Your task to perform on an android device: remove spam from my inbox in the gmail app Image 0: 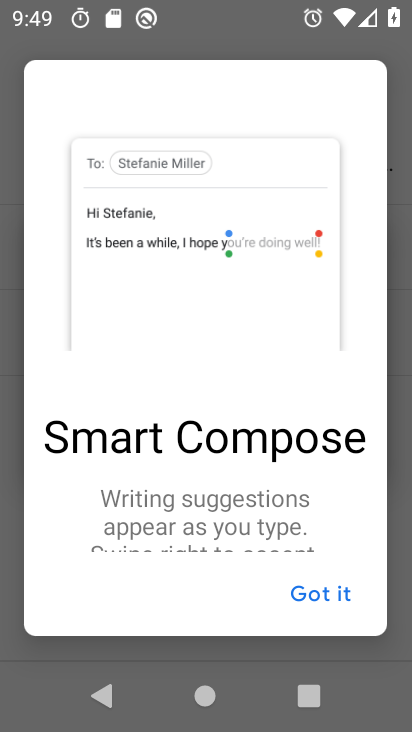
Step 0: press home button
Your task to perform on an android device: remove spam from my inbox in the gmail app Image 1: 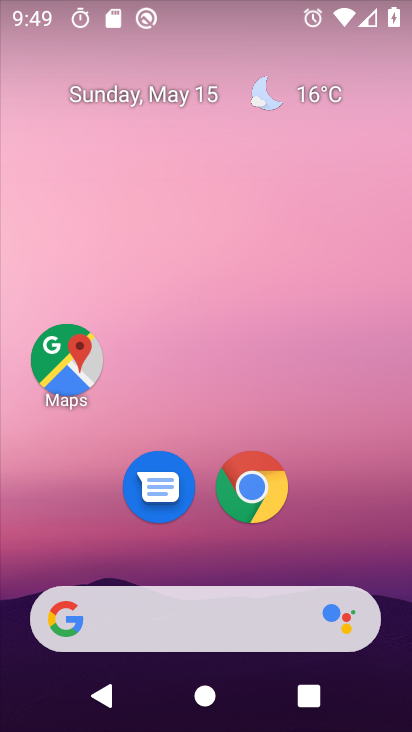
Step 1: drag from (358, 527) to (358, 128)
Your task to perform on an android device: remove spam from my inbox in the gmail app Image 2: 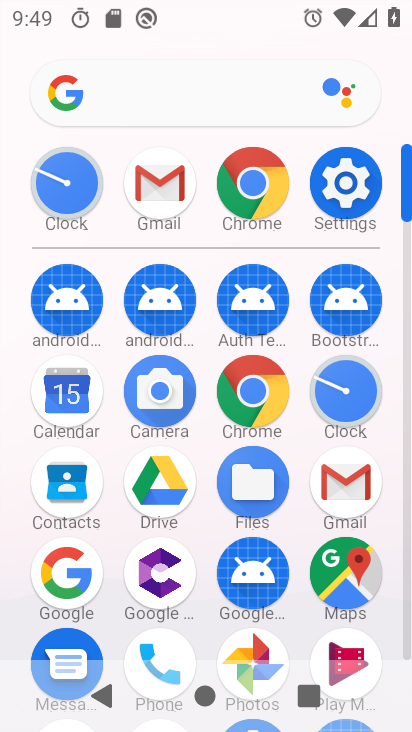
Step 2: click (354, 502)
Your task to perform on an android device: remove spam from my inbox in the gmail app Image 3: 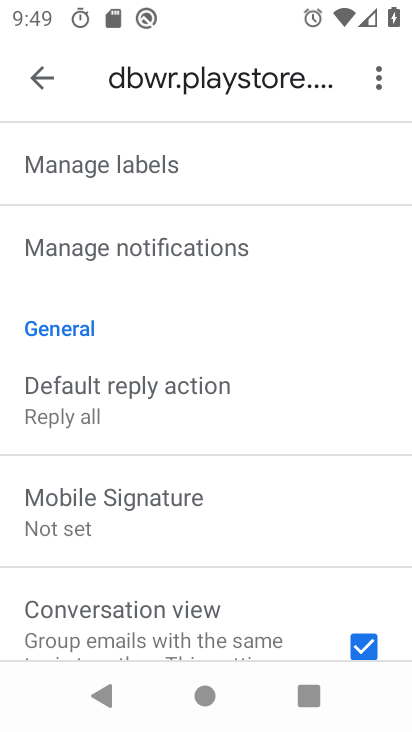
Step 3: drag from (251, 581) to (290, 256)
Your task to perform on an android device: remove spam from my inbox in the gmail app Image 4: 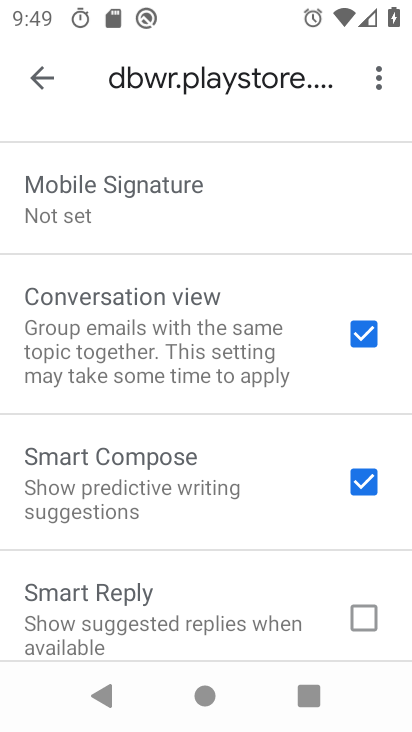
Step 4: click (47, 70)
Your task to perform on an android device: remove spam from my inbox in the gmail app Image 5: 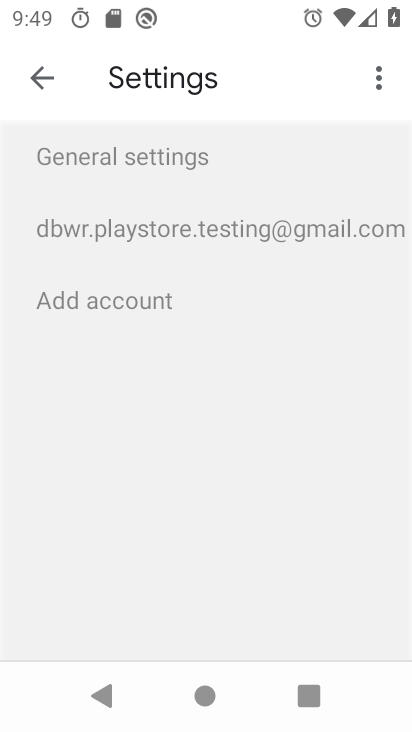
Step 5: click (47, 70)
Your task to perform on an android device: remove spam from my inbox in the gmail app Image 6: 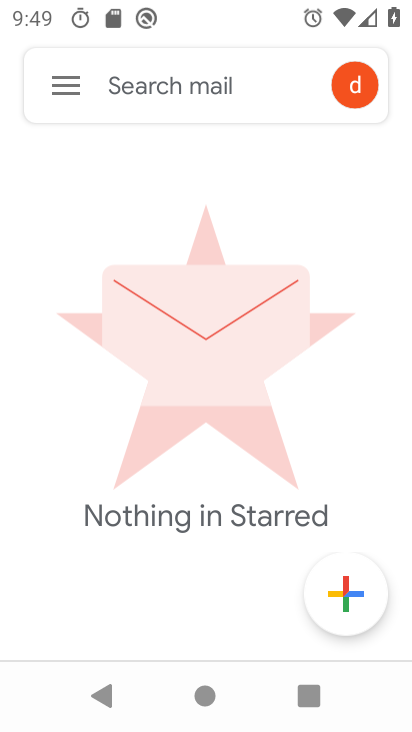
Step 6: click (59, 67)
Your task to perform on an android device: remove spam from my inbox in the gmail app Image 7: 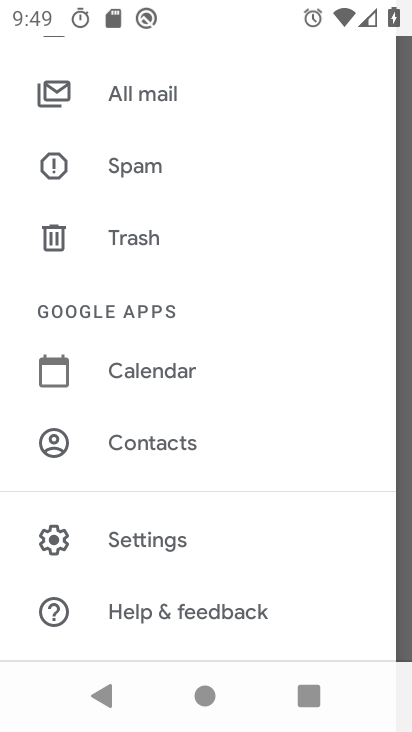
Step 7: click (148, 171)
Your task to perform on an android device: remove spam from my inbox in the gmail app Image 8: 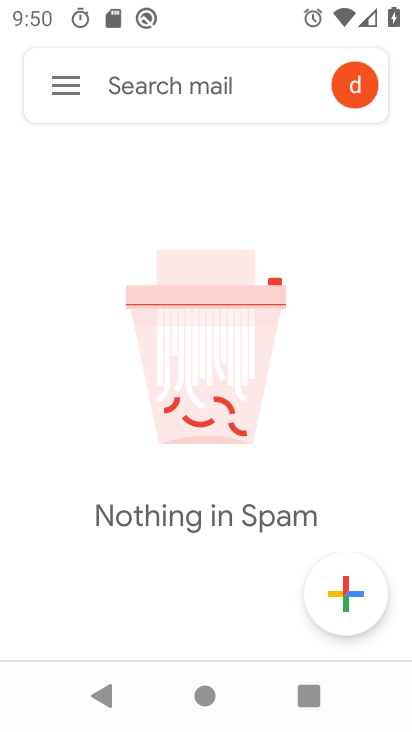
Step 8: task complete